Your task to perform on an android device: turn notification dots off Image 0: 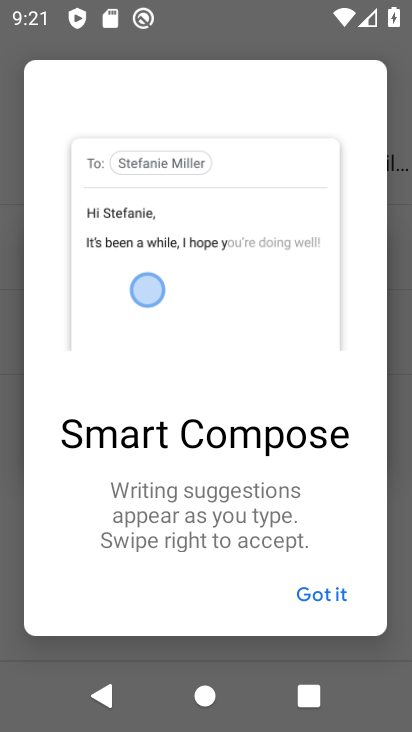
Step 0: press home button
Your task to perform on an android device: turn notification dots off Image 1: 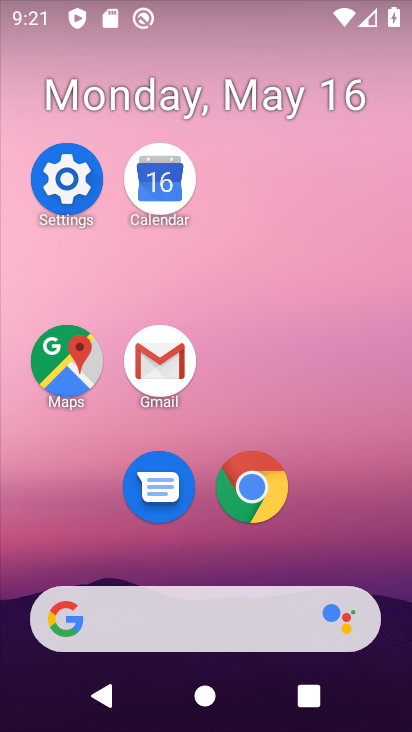
Step 1: click (44, 169)
Your task to perform on an android device: turn notification dots off Image 2: 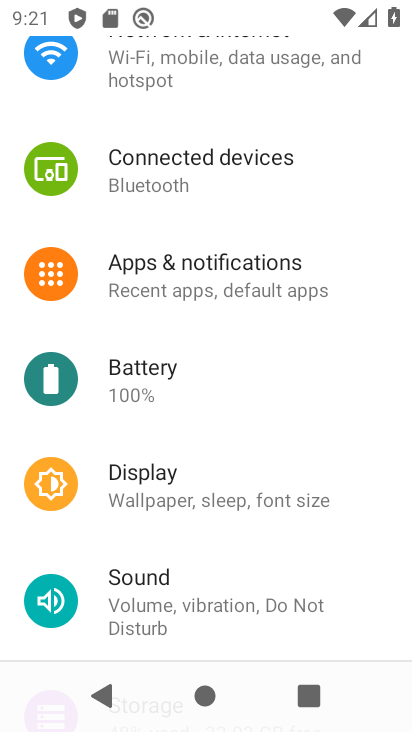
Step 2: click (209, 261)
Your task to perform on an android device: turn notification dots off Image 3: 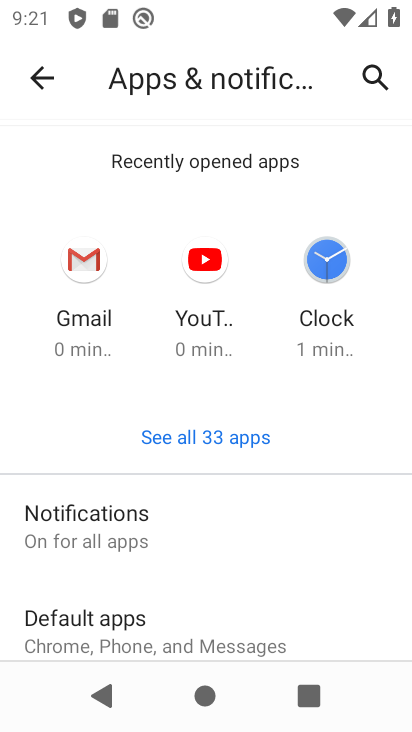
Step 3: click (152, 551)
Your task to perform on an android device: turn notification dots off Image 4: 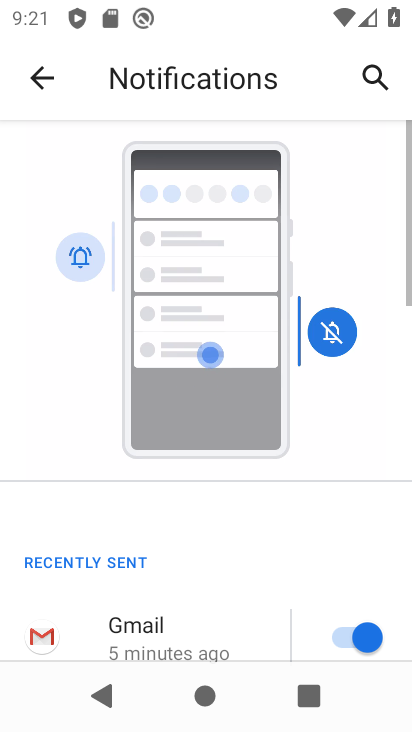
Step 4: drag from (231, 549) to (286, 161)
Your task to perform on an android device: turn notification dots off Image 5: 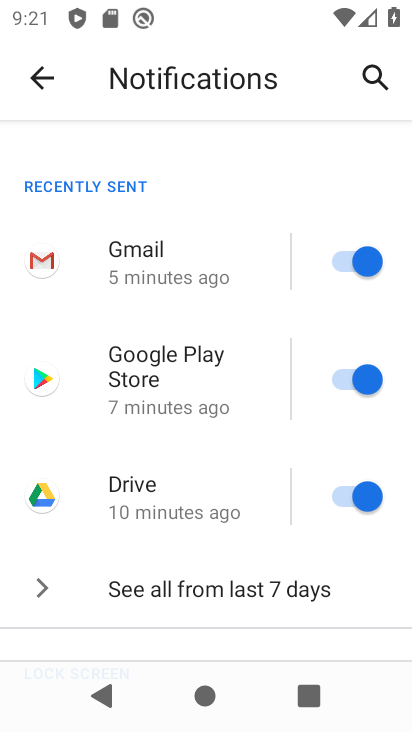
Step 5: drag from (276, 516) to (288, 112)
Your task to perform on an android device: turn notification dots off Image 6: 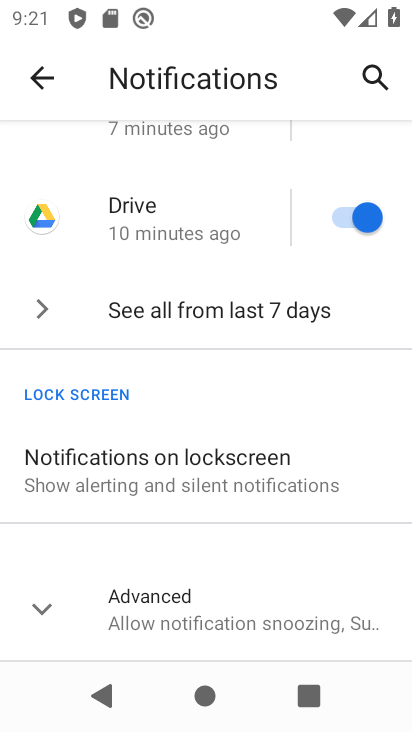
Step 6: click (178, 608)
Your task to perform on an android device: turn notification dots off Image 7: 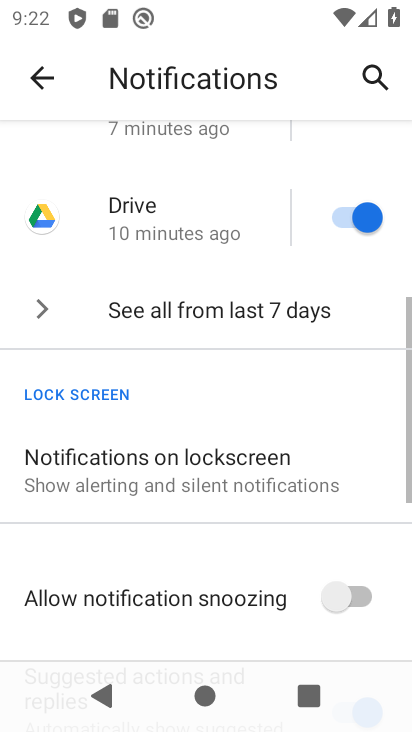
Step 7: drag from (221, 583) to (251, 188)
Your task to perform on an android device: turn notification dots off Image 8: 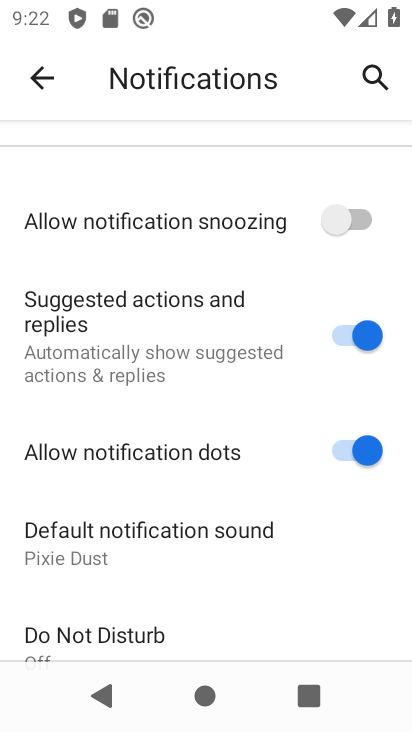
Step 8: click (376, 455)
Your task to perform on an android device: turn notification dots off Image 9: 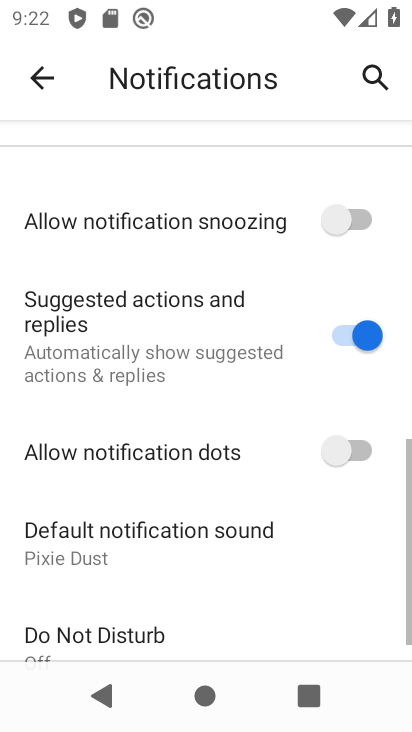
Step 9: task complete